Your task to perform on an android device: Clear the cart on costco. Image 0: 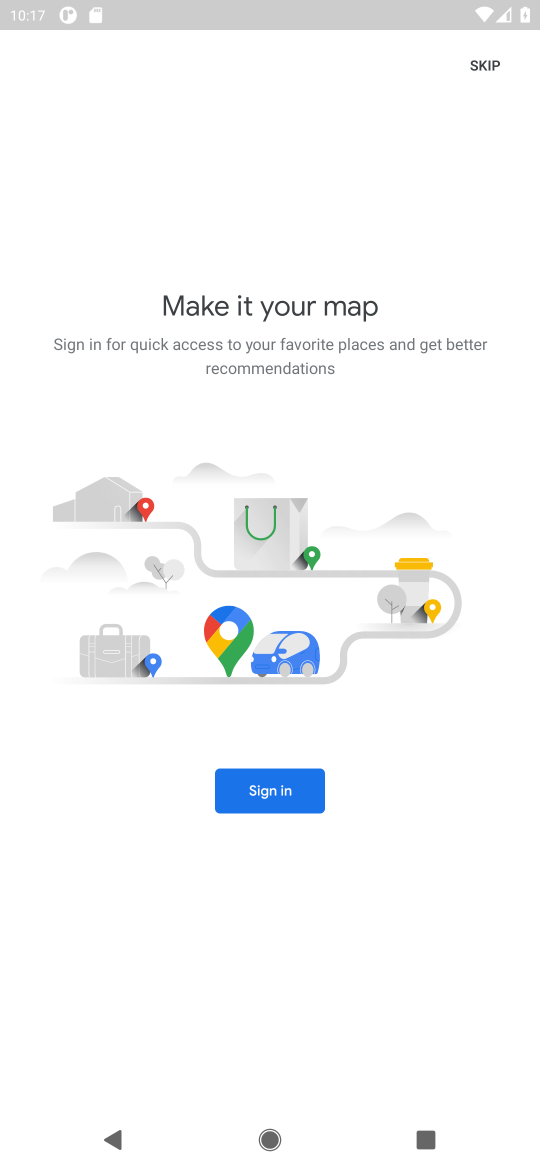
Step 0: press home button
Your task to perform on an android device: Clear the cart on costco. Image 1: 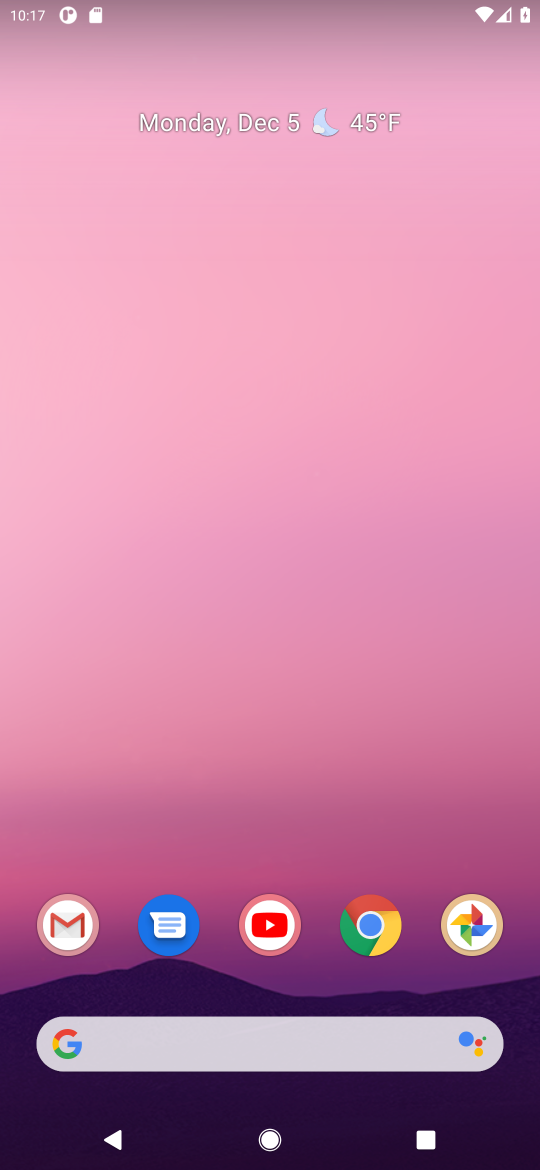
Step 1: click (373, 926)
Your task to perform on an android device: Clear the cart on costco. Image 2: 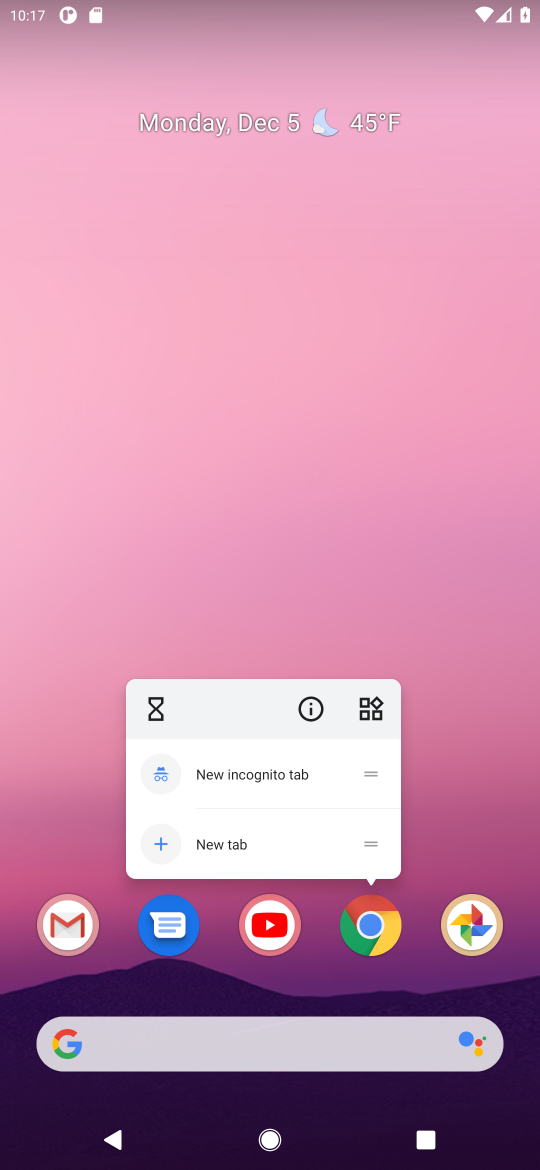
Step 2: click (373, 926)
Your task to perform on an android device: Clear the cart on costco. Image 3: 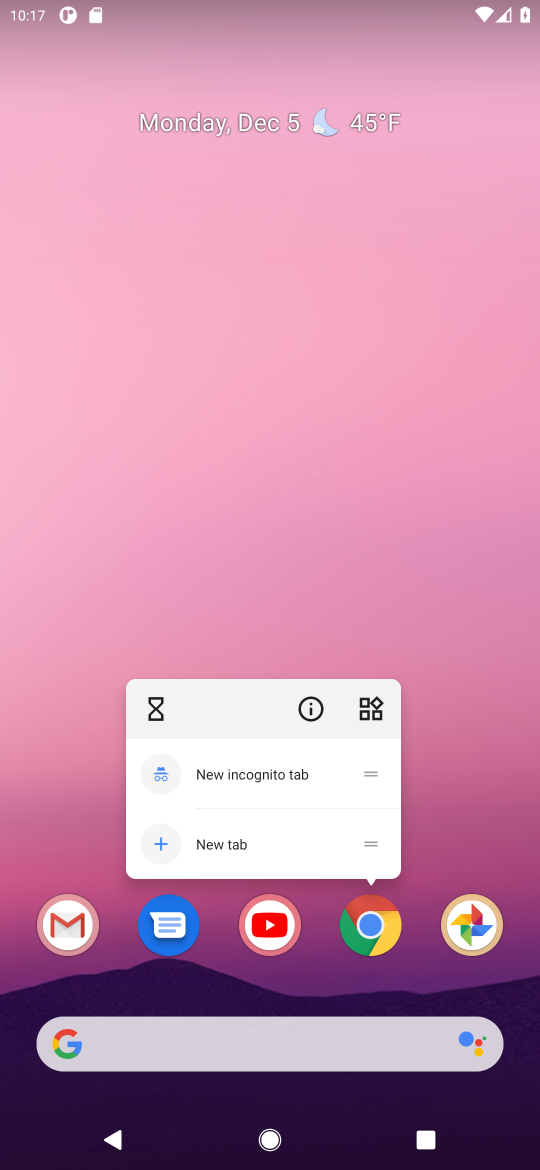
Step 3: click (369, 936)
Your task to perform on an android device: Clear the cart on costco. Image 4: 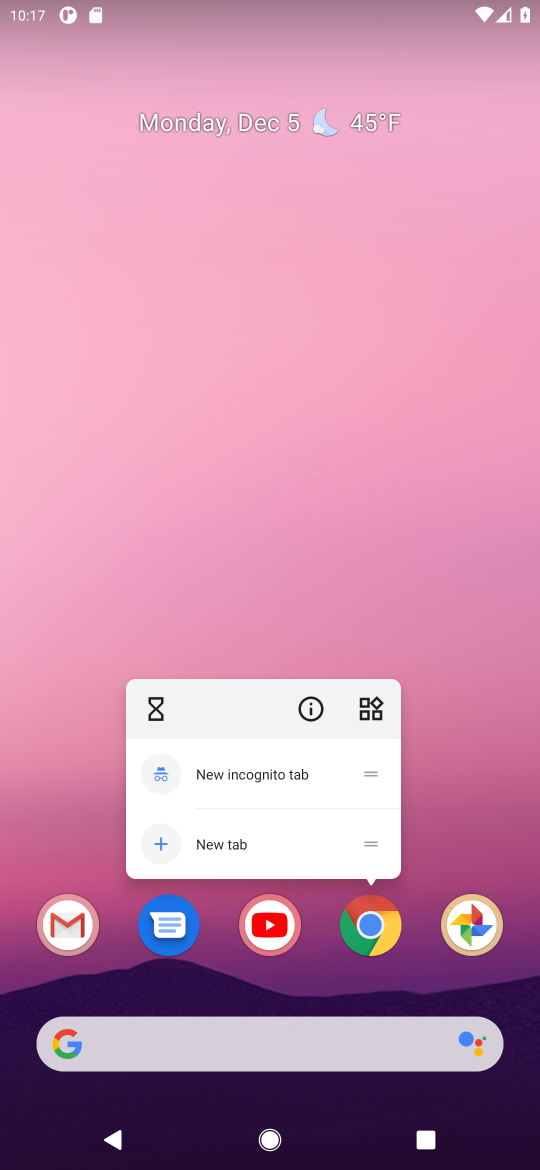
Step 4: click (370, 926)
Your task to perform on an android device: Clear the cart on costco. Image 5: 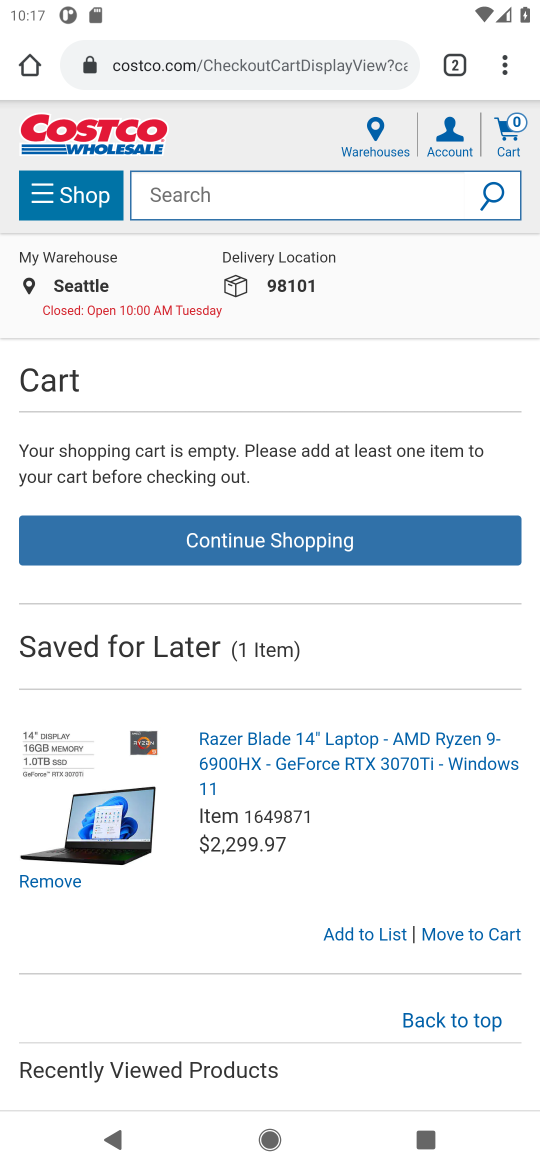
Step 5: click (508, 130)
Your task to perform on an android device: Clear the cart on costco. Image 6: 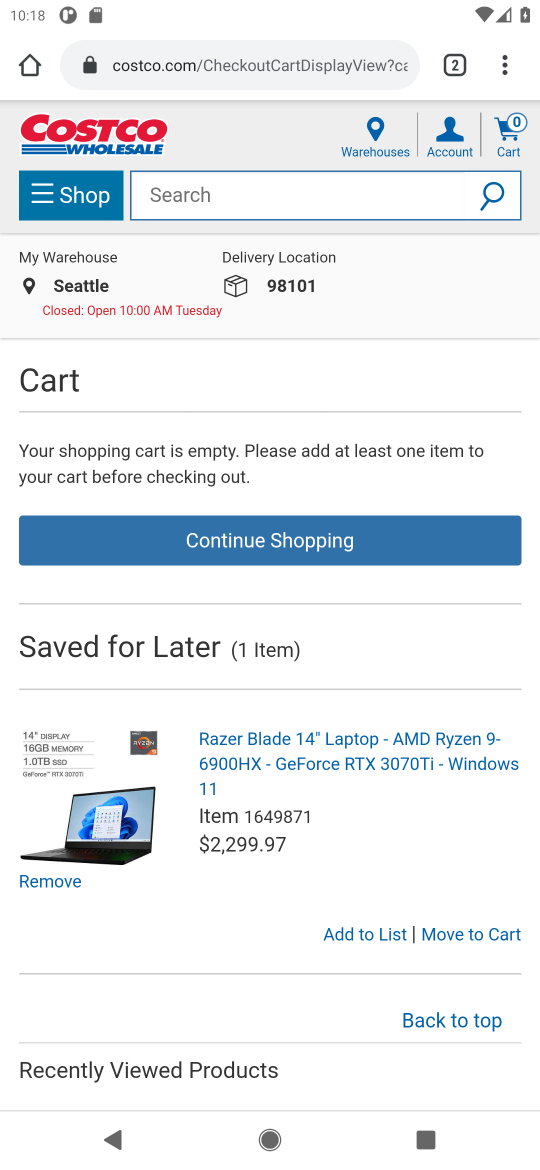
Step 6: task complete